Your task to perform on an android device: change alarm snooze length Image 0: 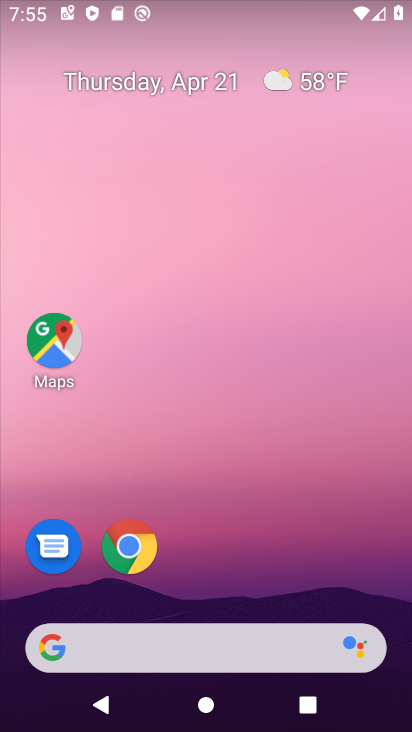
Step 0: drag from (289, 514) to (264, 74)
Your task to perform on an android device: change alarm snooze length Image 1: 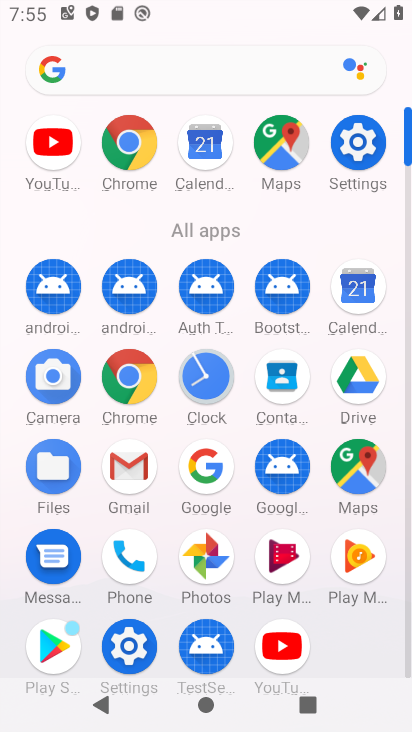
Step 1: click (218, 377)
Your task to perform on an android device: change alarm snooze length Image 2: 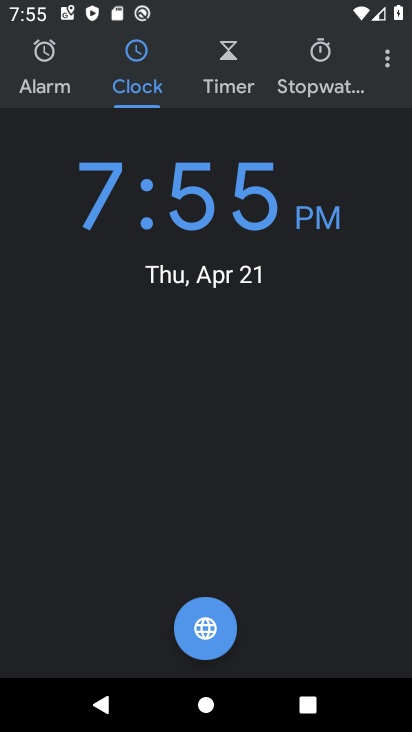
Step 2: click (49, 79)
Your task to perform on an android device: change alarm snooze length Image 3: 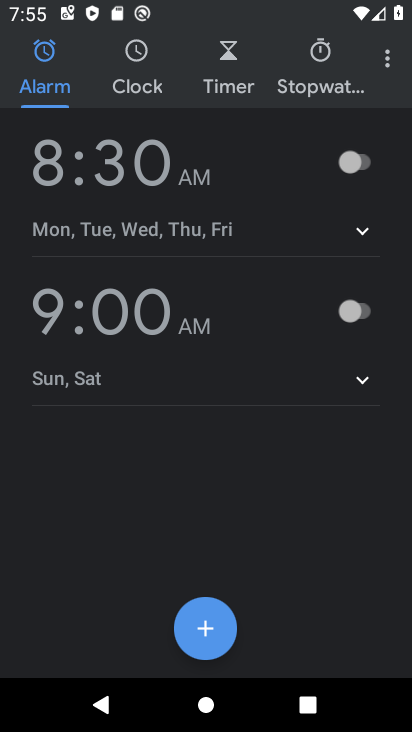
Step 3: click (373, 57)
Your task to perform on an android device: change alarm snooze length Image 4: 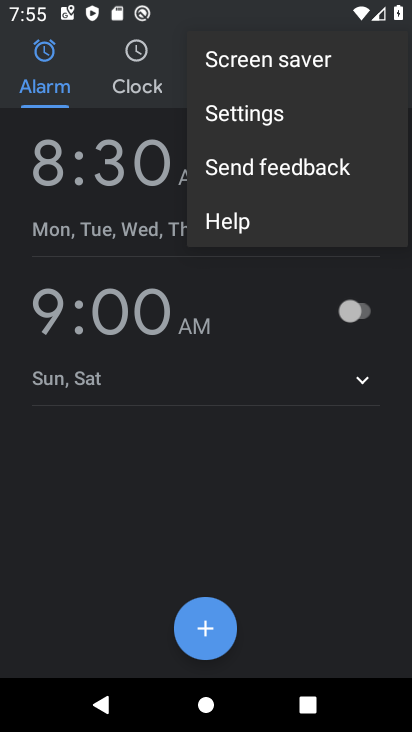
Step 4: click (243, 117)
Your task to perform on an android device: change alarm snooze length Image 5: 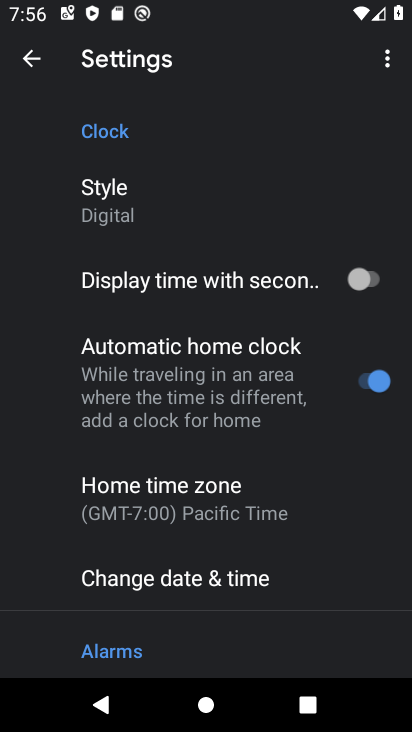
Step 5: drag from (223, 549) to (185, 253)
Your task to perform on an android device: change alarm snooze length Image 6: 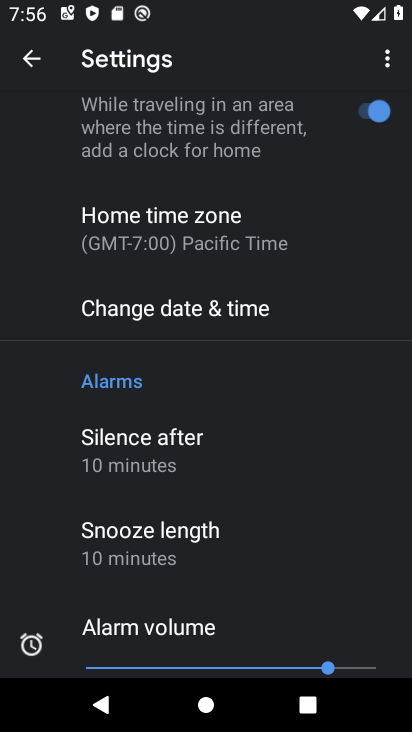
Step 6: click (170, 542)
Your task to perform on an android device: change alarm snooze length Image 7: 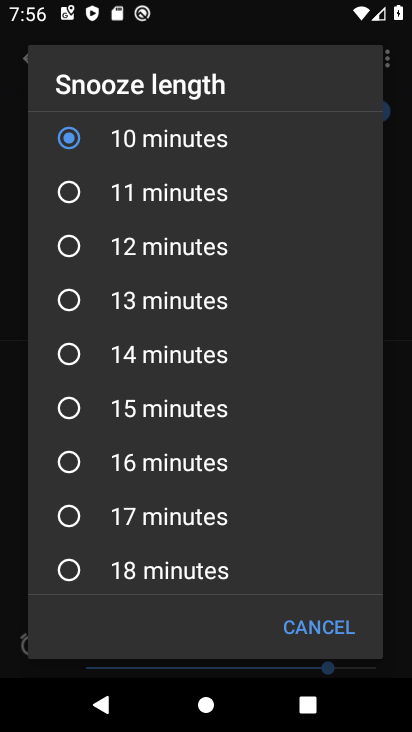
Step 7: click (76, 351)
Your task to perform on an android device: change alarm snooze length Image 8: 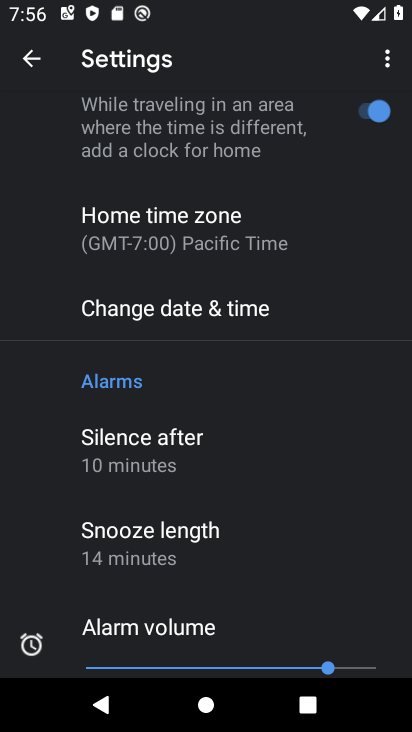
Step 8: task complete